Your task to perform on an android device: Open Google Chrome and open the bookmarks view Image 0: 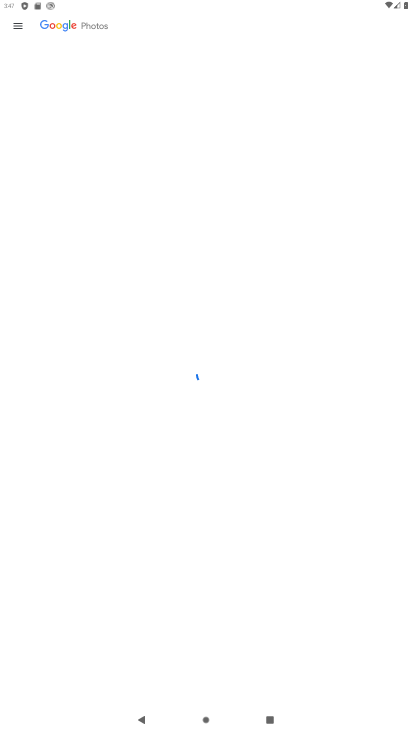
Step 0: press home button
Your task to perform on an android device: Open Google Chrome and open the bookmarks view Image 1: 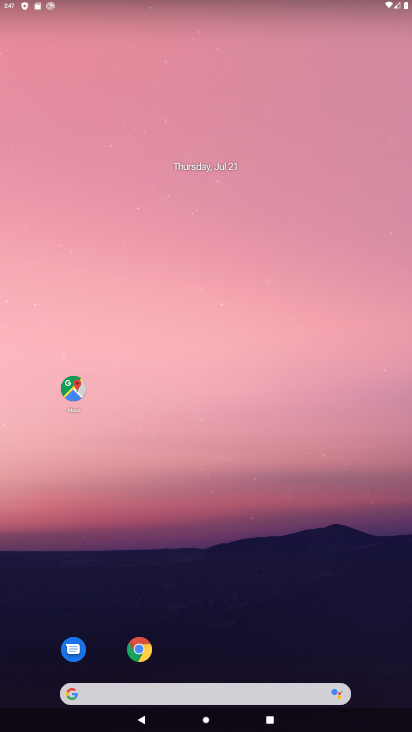
Step 1: click (146, 647)
Your task to perform on an android device: Open Google Chrome and open the bookmarks view Image 2: 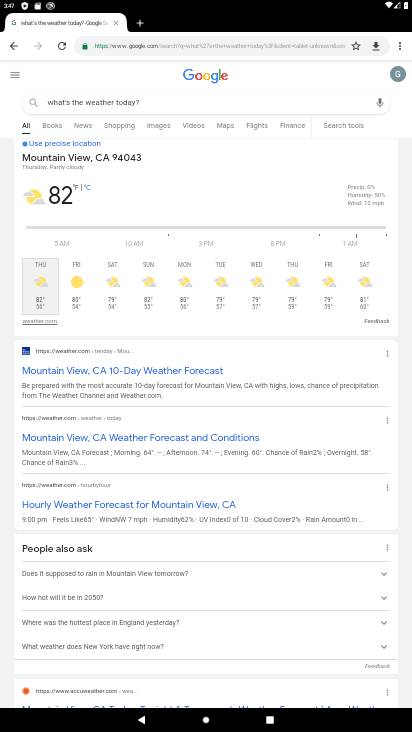
Step 2: click (400, 42)
Your task to perform on an android device: Open Google Chrome and open the bookmarks view Image 3: 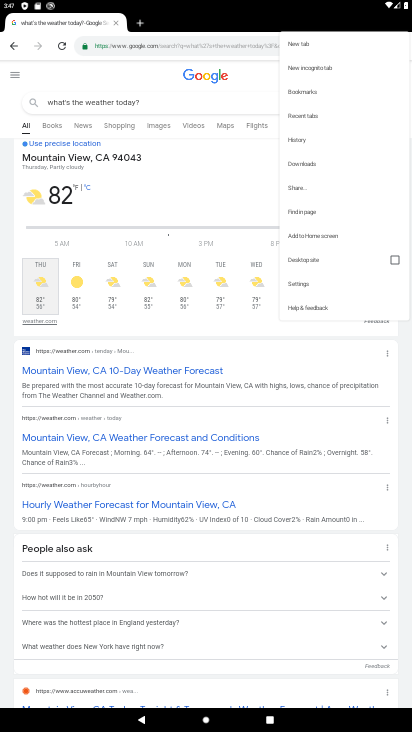
Step 3: click (298, 92)
Your task to perform on an android device: Open Google Chrome and open the bookmarks view Image 4: 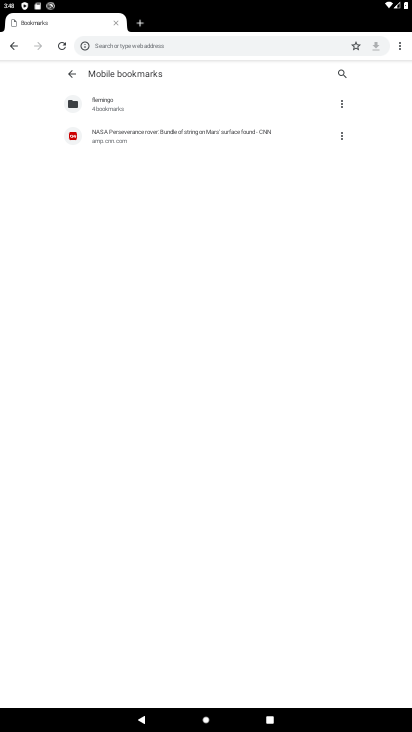
Step 4: task complete